Your task to perform on an android device: open a bookmark in the chrome app Image 0: 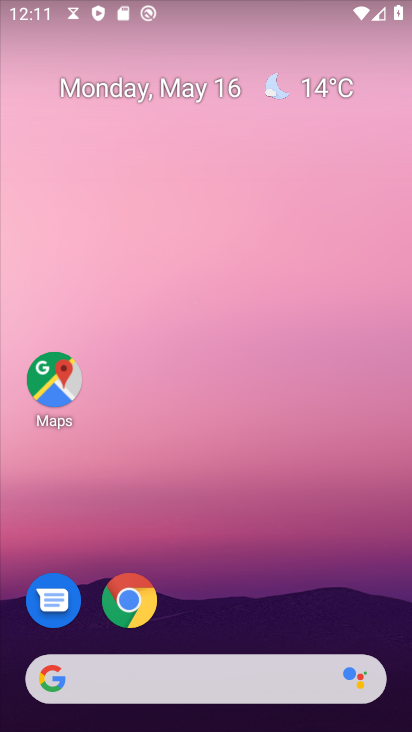
Step 0: drag from (231, 628) to (200, 4)
Your task to perform on an android device: open a bookmark in the chrome app Image 1: 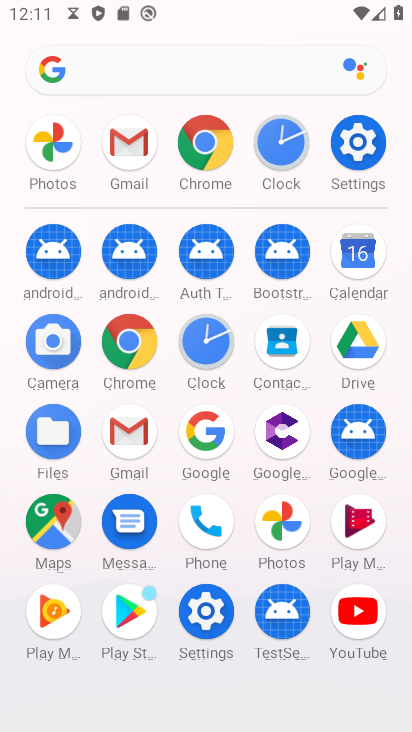
Step 1: click (203, 139)
Your task to perform on an android device: open a bookmark in the chrome app Image 2: 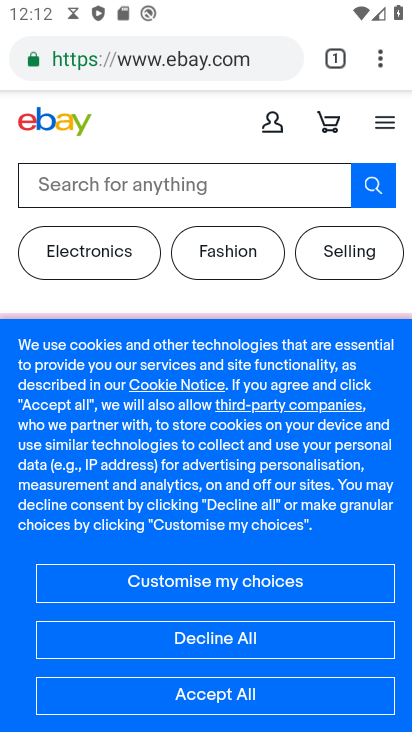
Step 2: drag from (381, 53) to (197, 226)
Your task to perform on an android device: open a bookmark in the chrome app Image 3: 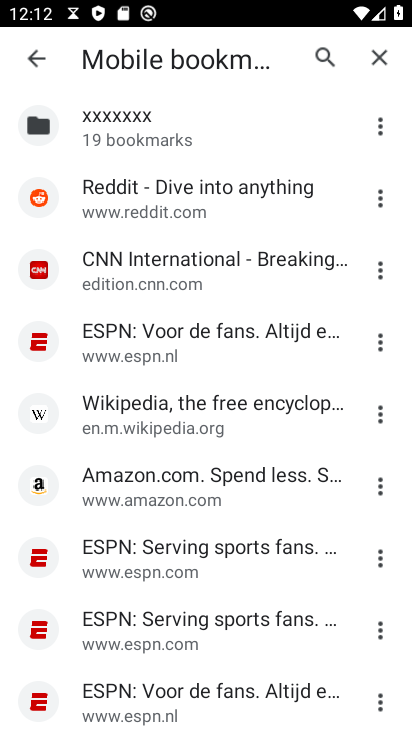
Step 3: click (175, 202)
Your task to perform on an android device: open a bookmark in the chrome app Image 4: 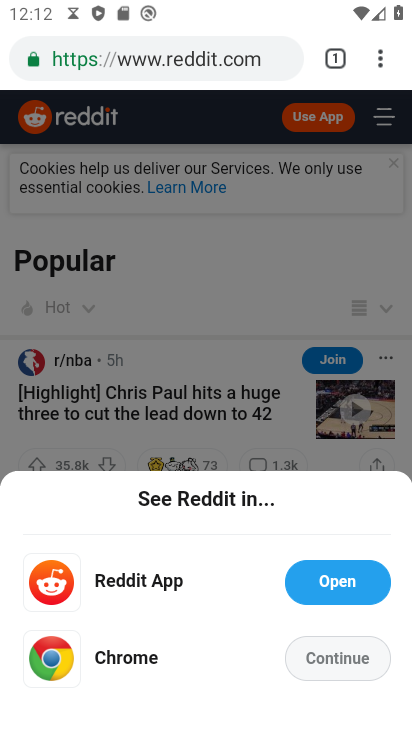
Step 4: task complete